Your task to perform on an android device: find snoozed emails in the gmail app Image 0: 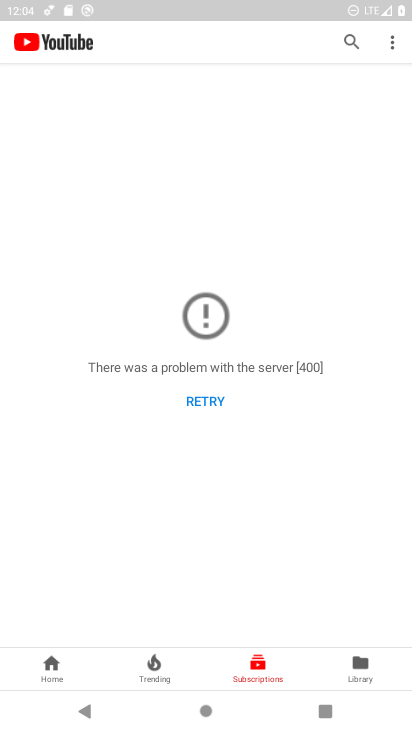
Step 0: press home button
Your task to perform on an android device: find snoozed emails in the gmail app Image 1: 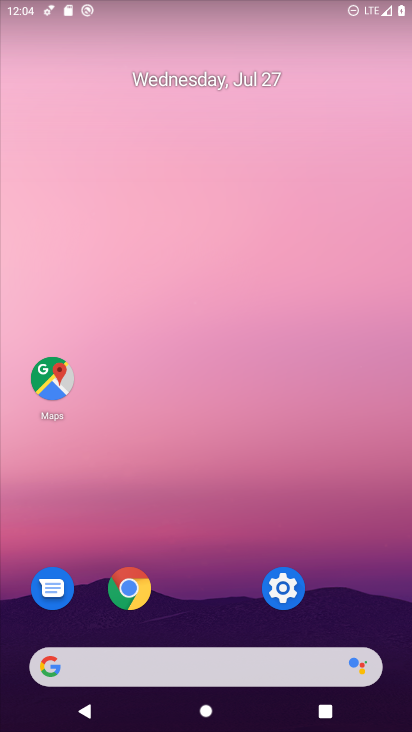
Step 1: drag from (237, 690) to (185, 147)
Your task to perform on an android device: find snoozed emails in the gmail app Image 2: 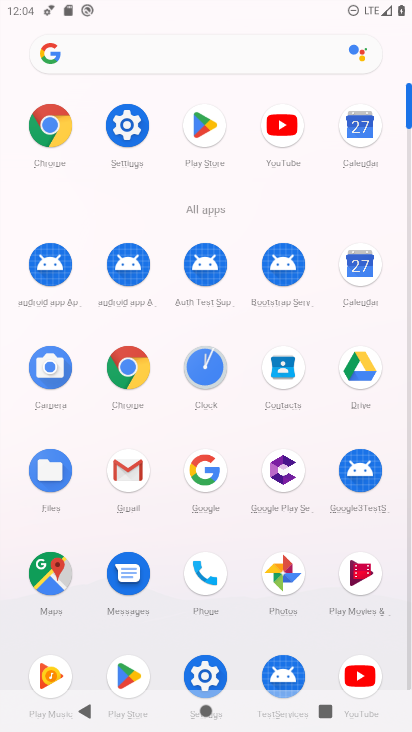
Step 2: drag from (138, 465) to (344, 621)
Your task to perform on an android device: find snoozed emails in the gmail app Image 3: 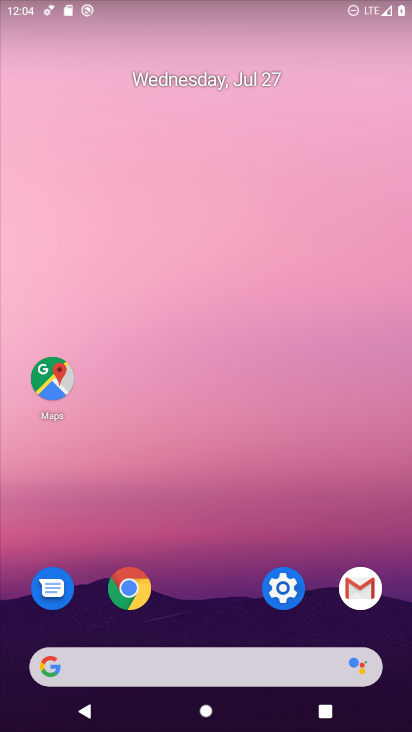
Step 3: click (366, 587)
Your task to perform on an android device: find snoozed emails in the gmail app Image 4: 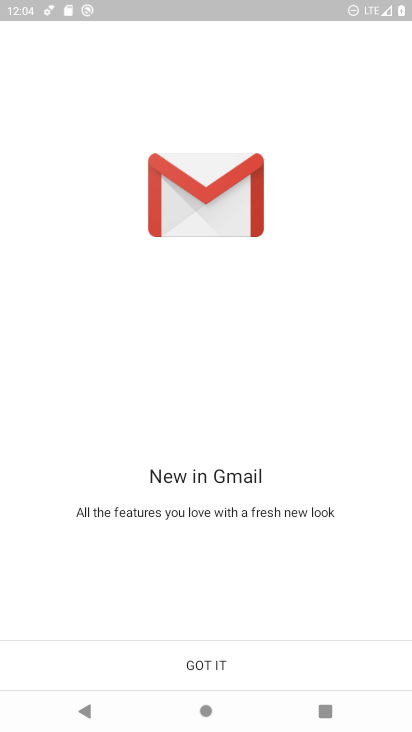
Step 4: click (214, 670)
Your task to perform on an android device: find snoozed emails in the gmail app Image 5: 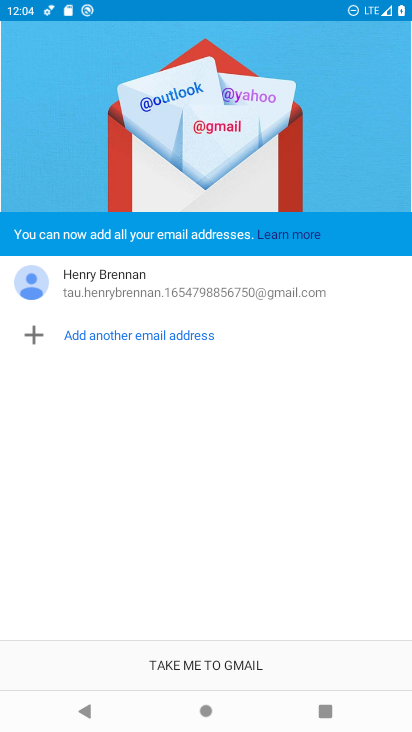
Step 5: click (166, 674)
Your task to perform on an android device: find snoozed emails in the gmail app Image 6: 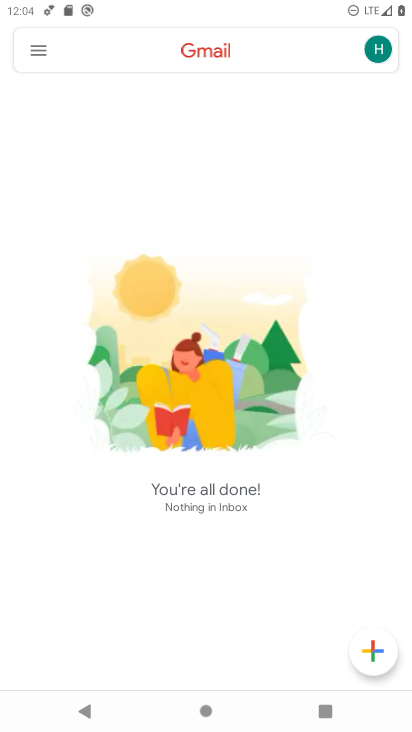
Step 6: click (35, 63)
Your task to perform on an android device: find snoozed emails in the gmail app Image 7: 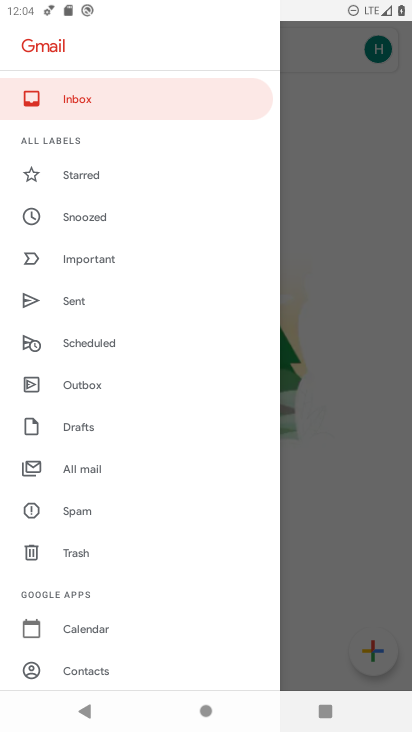
Step 7: click (83, 218)
Your task to perform on an android device: find snoozed emails in the gmail app Image 8: 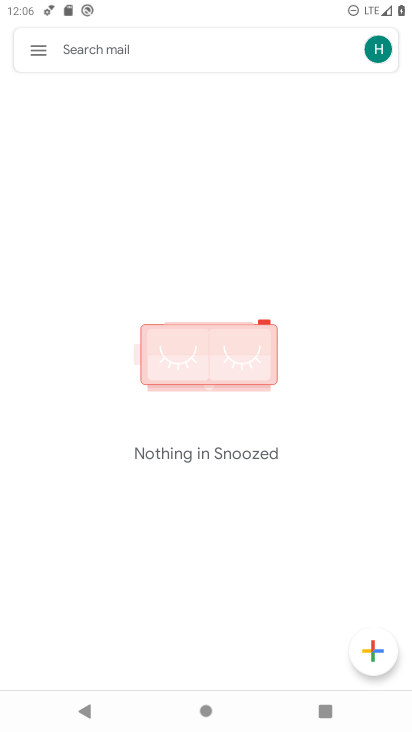
Step 8: task complete